Your task to perform on an android device: Open CNN.com Image 0: 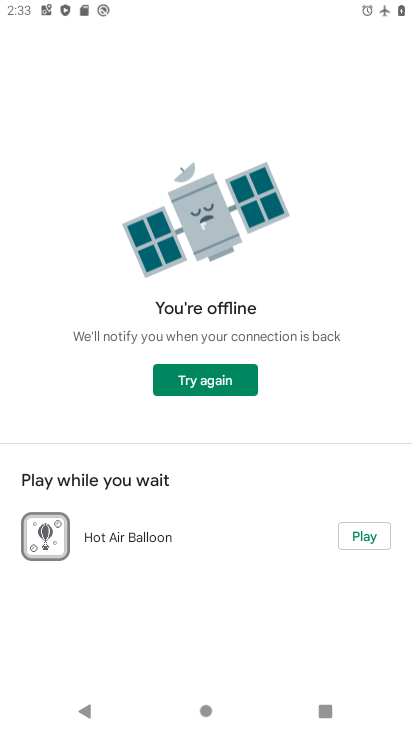
Step 0: drag from (191, 590) to (291, 219)
Your task to perform on an android device: Open CNN.com Image 1: 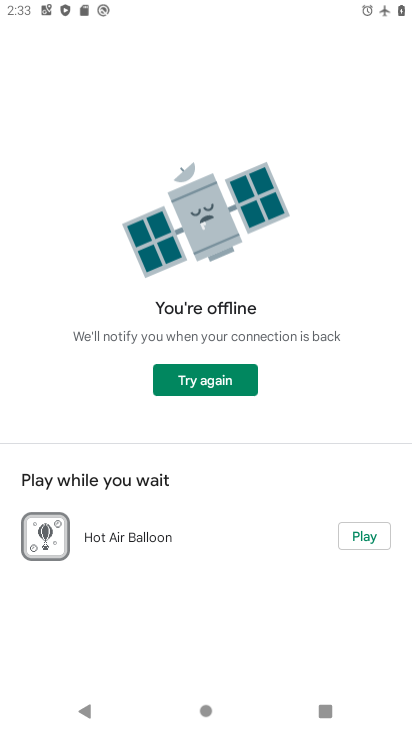
Step 1: press back button
Your task to perform on an android device: Open CNN.com Image 2: 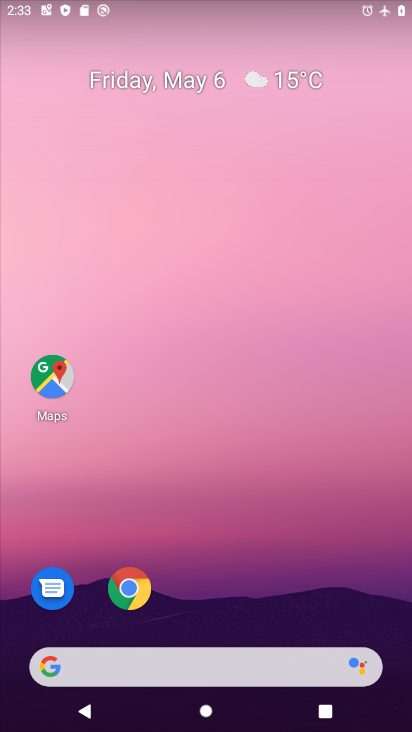
Step 2: click (151, 669)
Your task to perform on an android device: Open CNN.com Image 3: 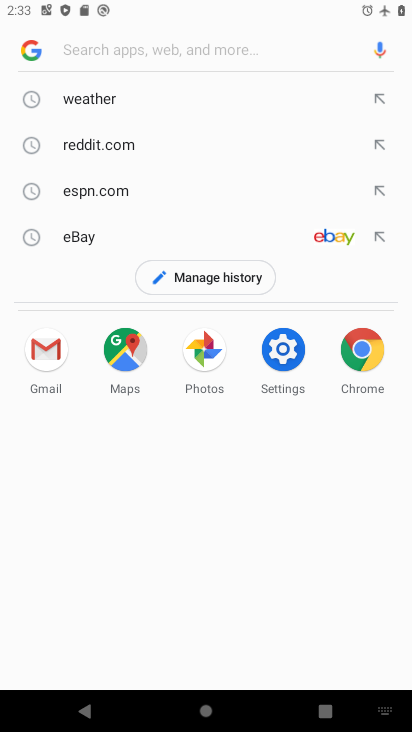
Step 3: click (104, 53)
Your task to perform on an android device: Open CNN.com Image 4: 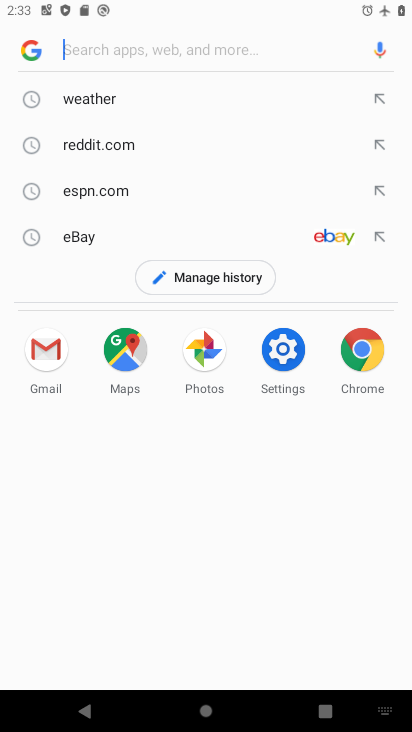
Step 4: type "cnn"
Your task to perform on an android device: Open CNN.com Image 5: 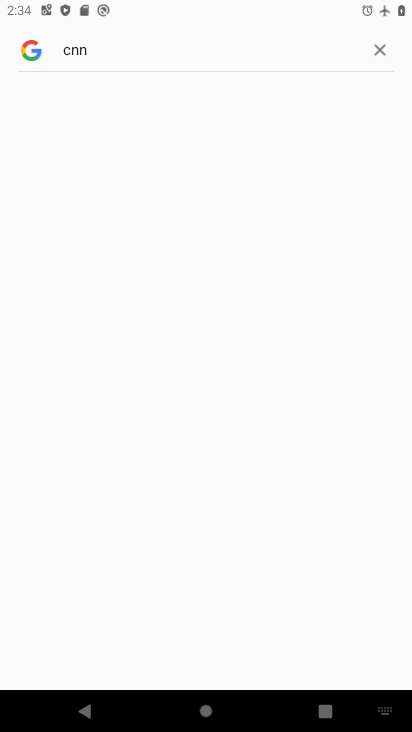
Step 5: click (166, 111)
Your task to perform on an android device: Open CNN.com Image 6: 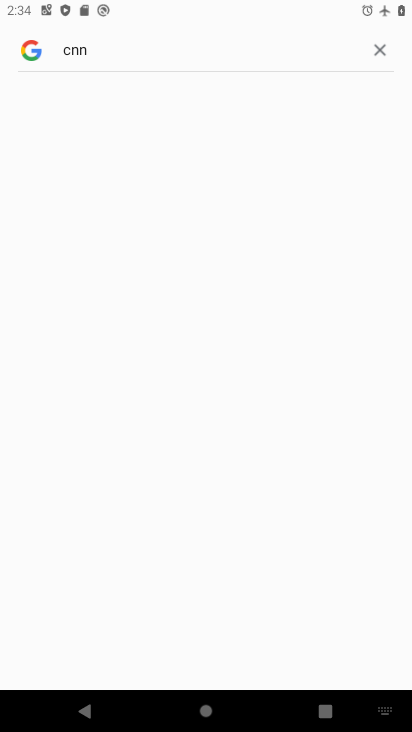
Step 6: task complete